Your task to perform on an android device: visit the assistant section in the google photos Image 0: 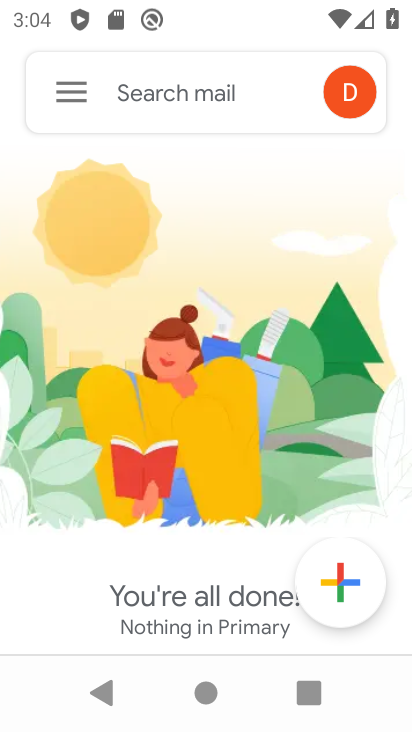
Step 0: press home button
Your task to perform on an android device: visit the assistant section in the google photos Image 1: 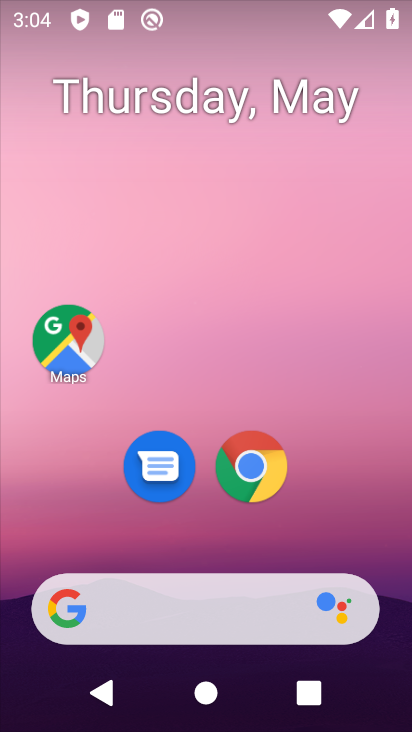
Step 1: drag from (374, 535) to (287, 198)
Your task to perform on an android device: visit the assistant section in the google photos Image 2: 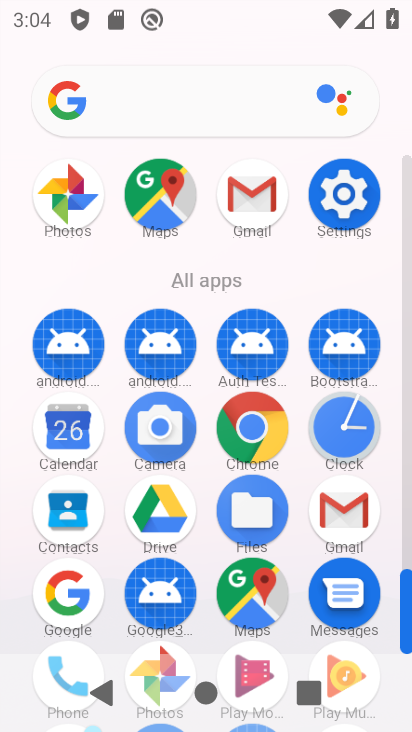
Step 2: click (69, 204)
Your task to perform on an android device: visit the assistant section in the google photos Image 3: 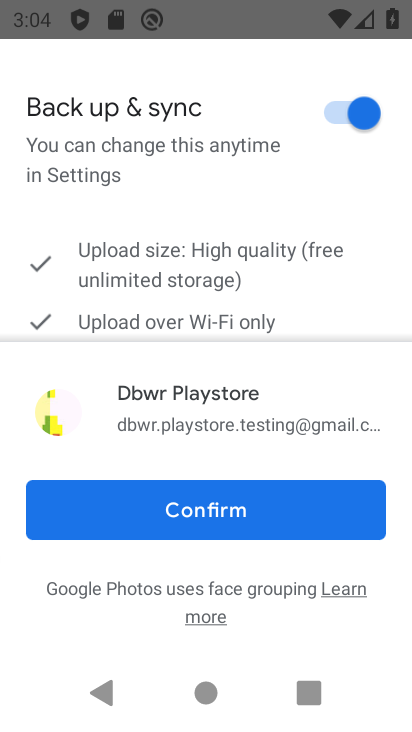
Step 3: click (222, 529)
Your task to perform on an android device: visit the assistant section in the google photos Image 4: 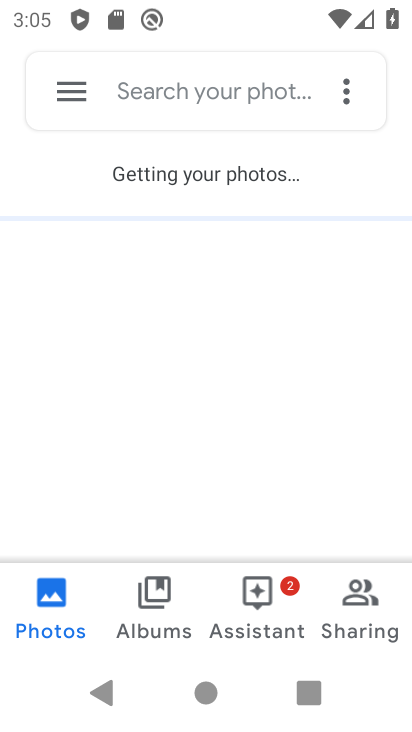
Step 4: click (261, 589)
Your task to perform on an android device: visit the assistant section in the google photos Image 5: 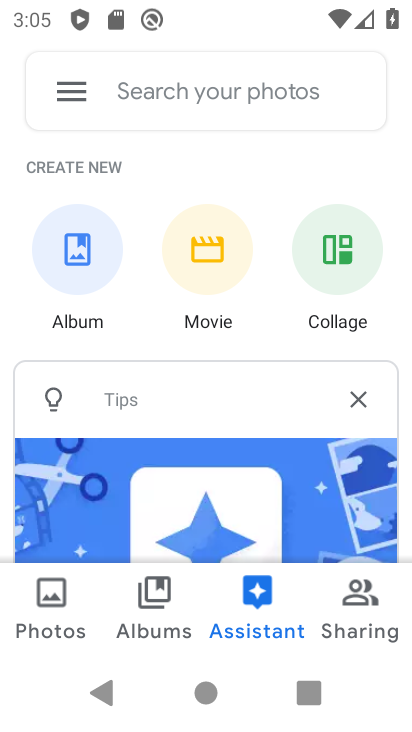
Step 5: task complete